Your task to perform on an android device: change notification settings in the gmail app Image 0: 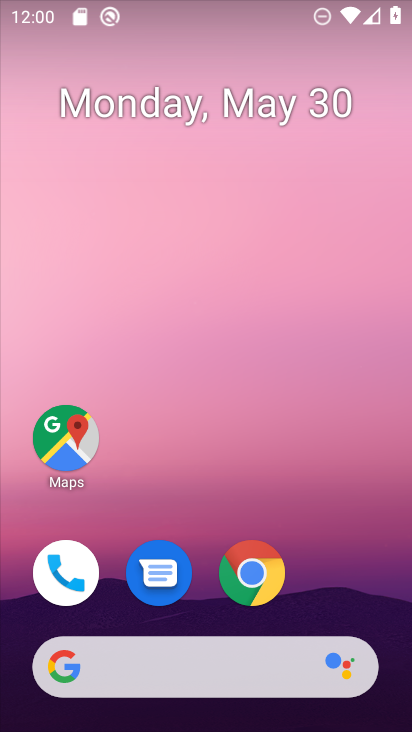
Step 0: drag from (338, 618) to (289, 262)
Your task to perform on an android device: change notification settings in the gmail app Image 1: 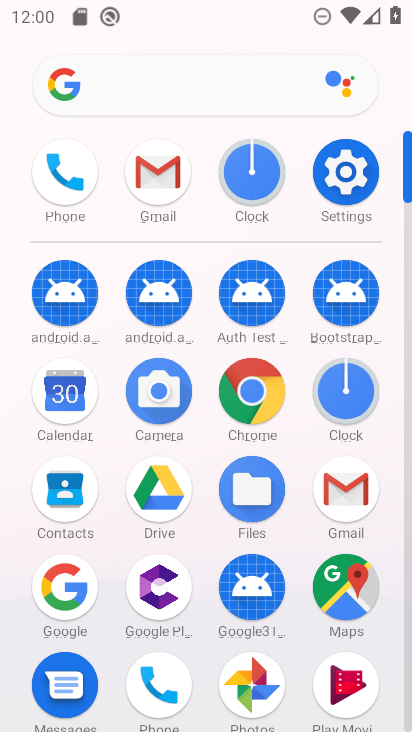
Step 1: click (155, 182)
Your task to perform on an android device: change notification settings in the gmail app Image 2: 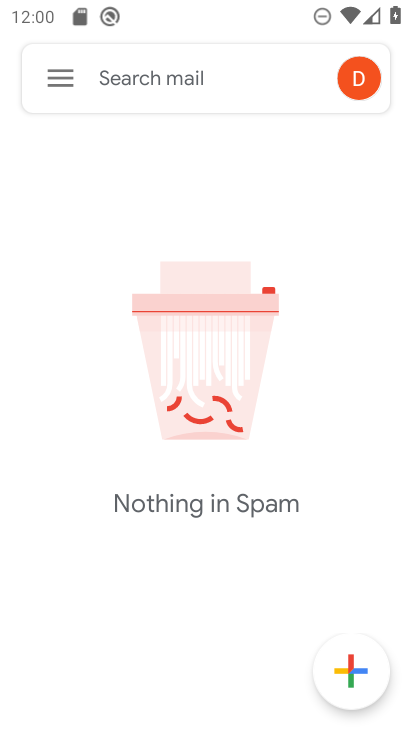
Step 2: click (63, 81)
Your task to perform on an android device: change notification settings in the gmail app Image 3: 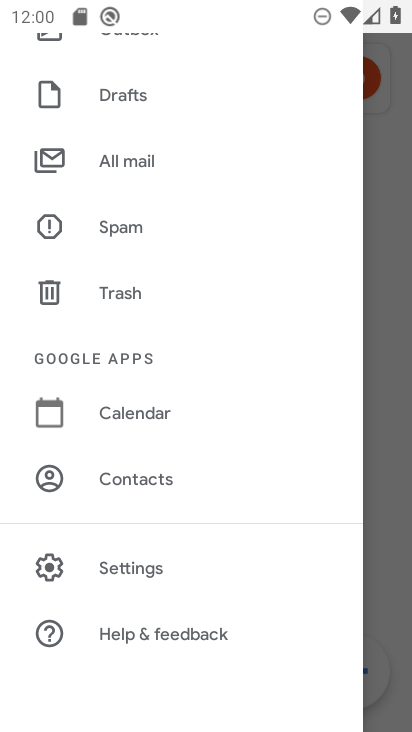
Step 3: click (126, 571)
Your task to perform on an android device: change notification settings in the gmail app Image 4: 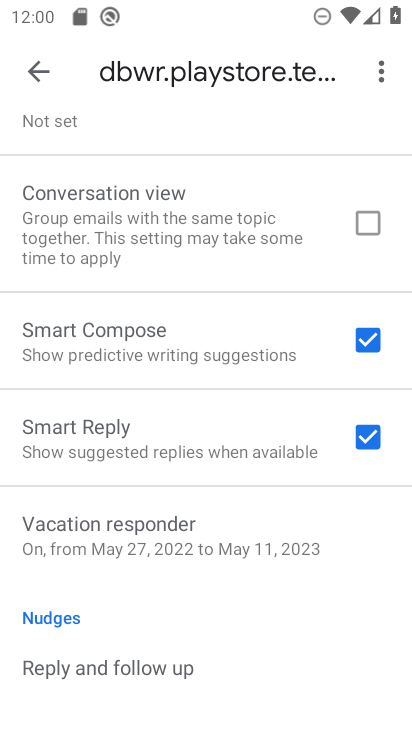
Step 4: drag from (297, 679) to (259, 147)
Your task to perform on an android device: change notification settings in the gmail app Image 5: 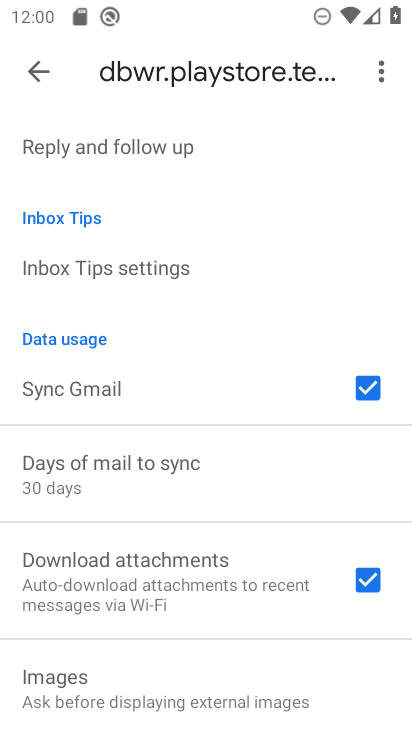
Step 5: drag from (167, 683) to (203, 83)
Your task to perform on an android device: change notification settings in the gmail app Image 6: 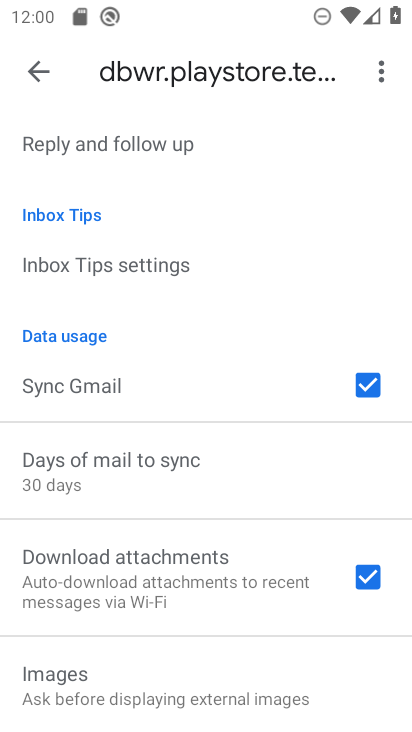
Step 6: drag from (179, 666) to (183, 190)
Your task to perform on an android device: change notification settings in the gmail app Image 7: 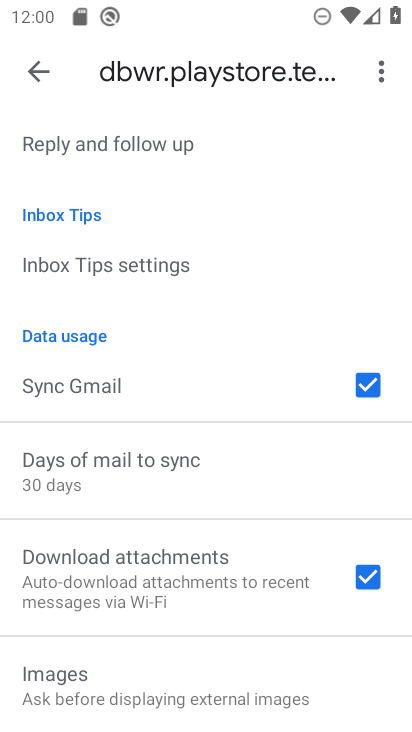
Step 7: drag from (269, 136) to (232, 727)
Your task to perform on an android device: change notification settings in the gmail app Image 8: 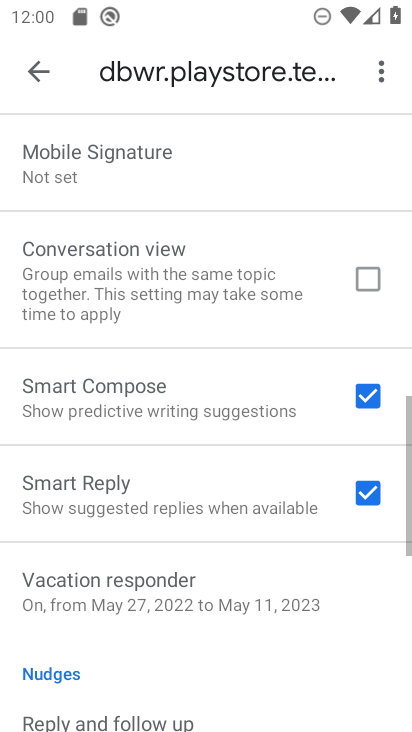
Step 8: drag from (230, 170) to (220, 606)
Your task to perform on an android device: change notification settings in the gmail app Image 9: 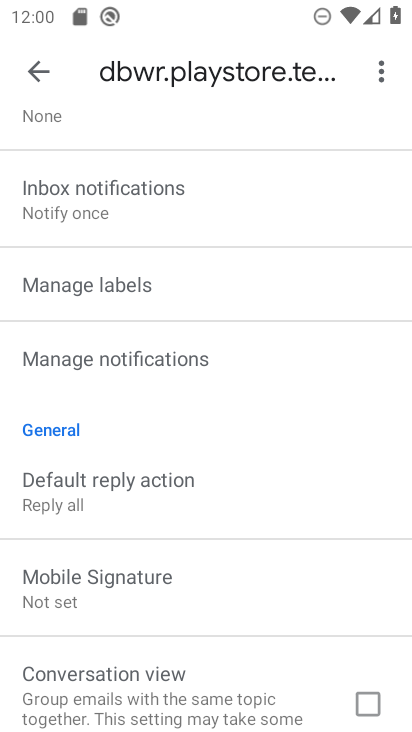
Step 9: click (122, 345)
Your task to perform on an android device: change notification settings in the gmail app Image 10: 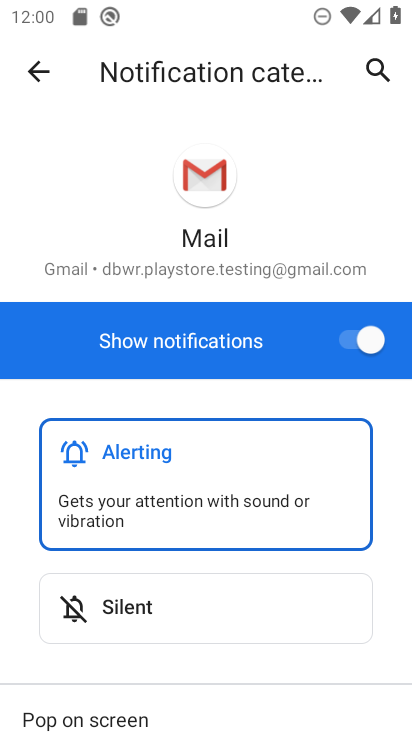
Step 10: click (368, 353)
Your task to perform on an android device: change notification settings in the gmail app Image 11: 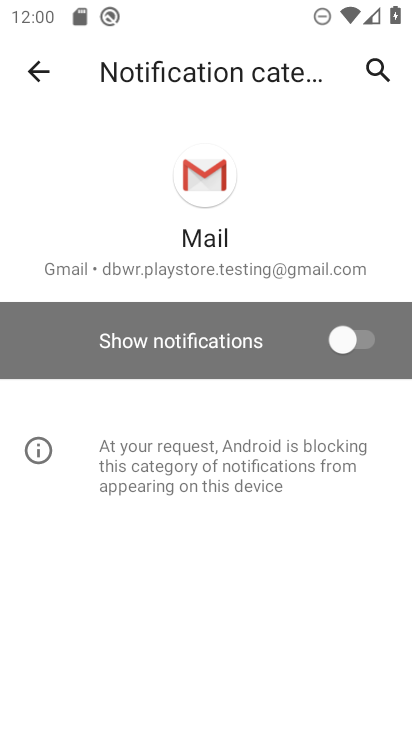
Step 11: task complete